Your task to perform on an android device: Turn off the flashlight Image 0: 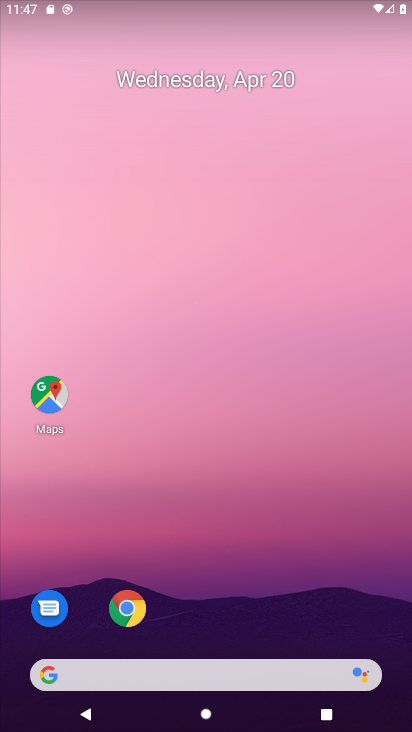
Step 0: task impossible